Your task to perform on an android device: Check the weather Image 0: 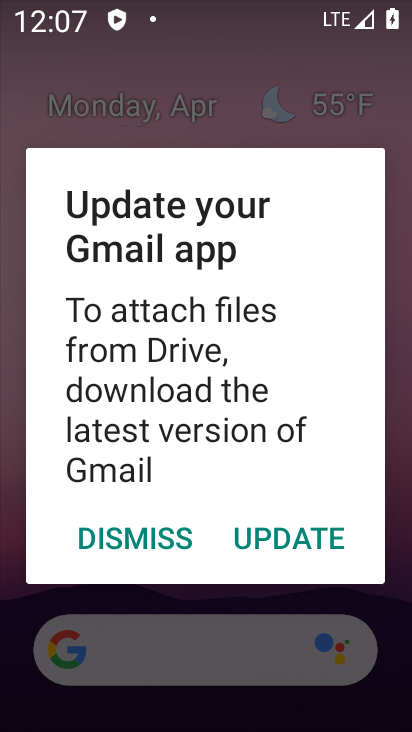
Step 0: press home button
Your task to perform on an android device: Check the weather Image 1: 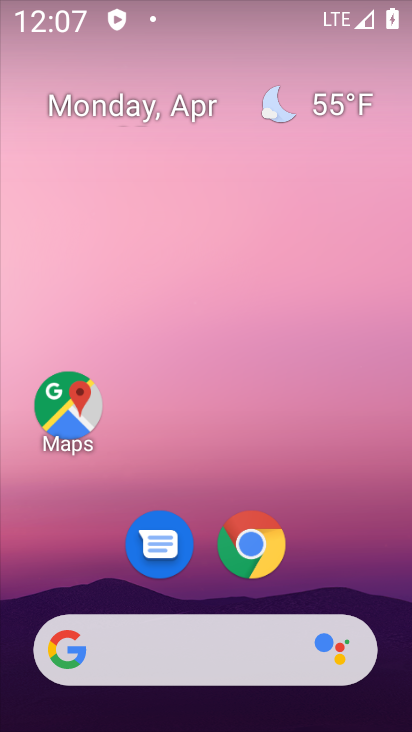
Step 1: click (273, 546)
Your task to perform on an android device: Check the weather Image 2: 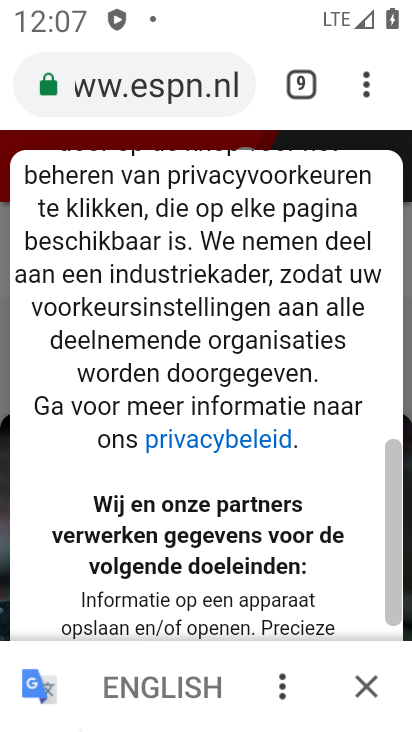
Step 2: click (307, 92)
Your task to perform on an android device: Check the weather Image 3: 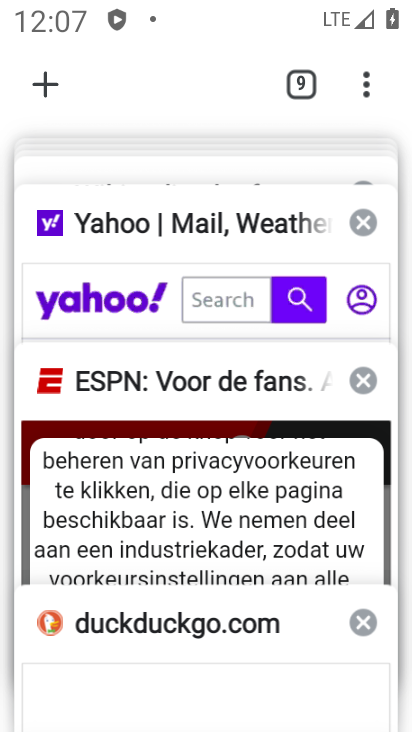
Step 3: drag from (155, 535) to (183, 205)
Your task to perform on an android device: Check the weather Image 4: 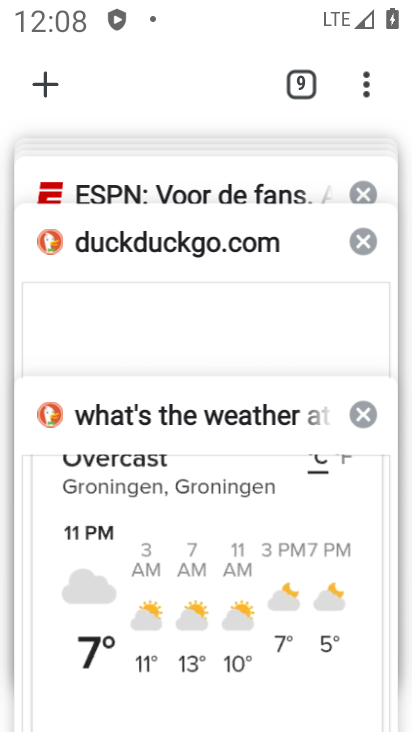
Step 4: click (185, 557)
Your task to perform on an android device: Check the weather Image 5: 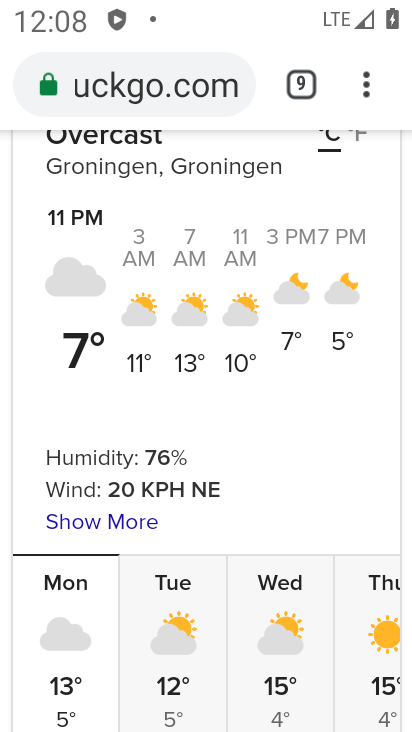
Step 5: task complete